Your task to perform on an android device: See recent photos Image 0: 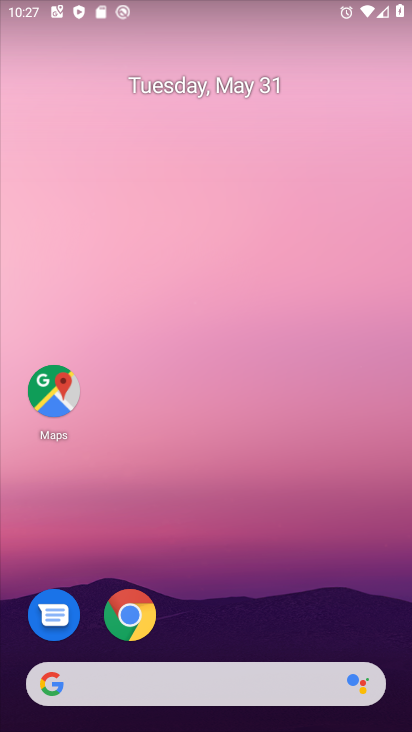
Step 0: drag from (350, 596) to (411, 27)
Your task to perform on an android device: See recent photos Image 1: 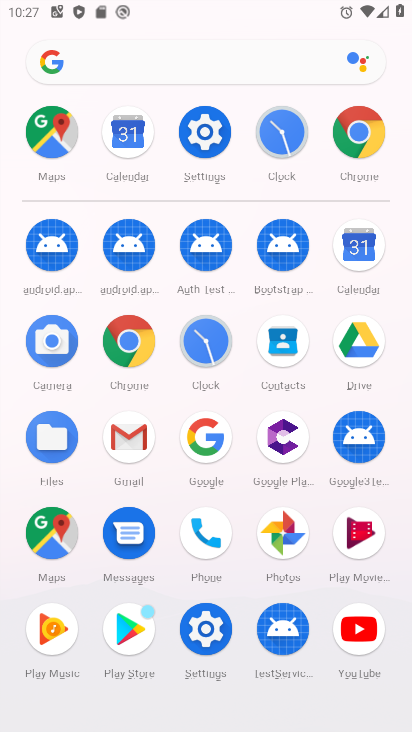
Step 1: click (279, 548)
Your task to perform on an android device: See recent photos Image 2: 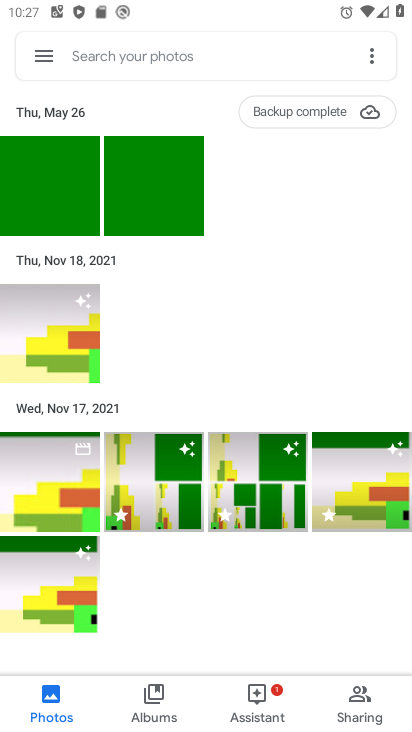
Step 2: click (59, 498)
Your task to perform on an android device: See recent photos Image 3: 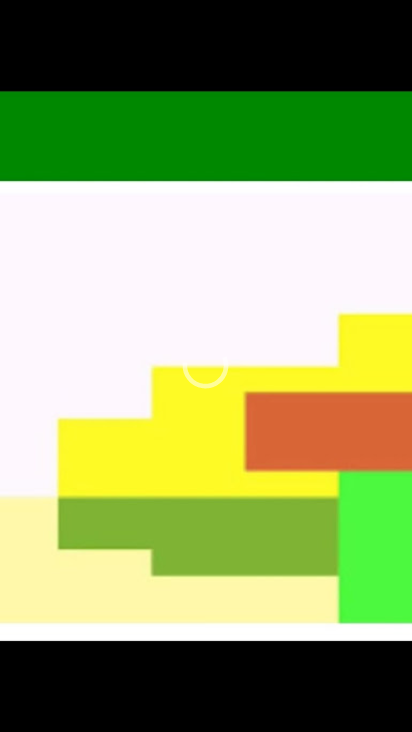
Step 3: task complete